Your task to perform on an android device: Open display settings Image 0: 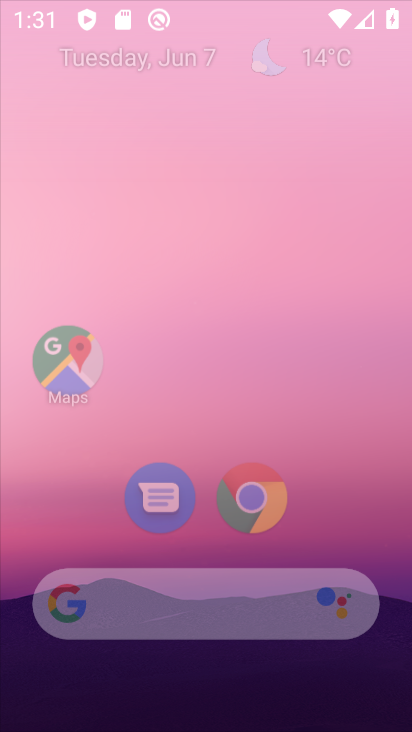
Step 0: click (281, 49)
Your task to perform on an android device: Open display settings Image 1: 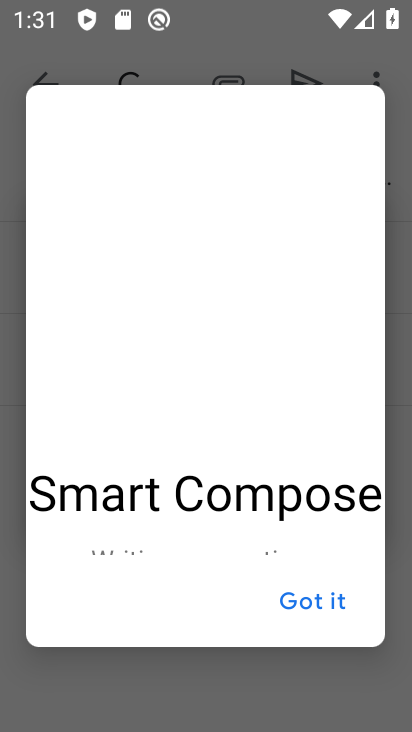
Step 1: press home button
Your task to perform on an android device: Open display settings Image 2: 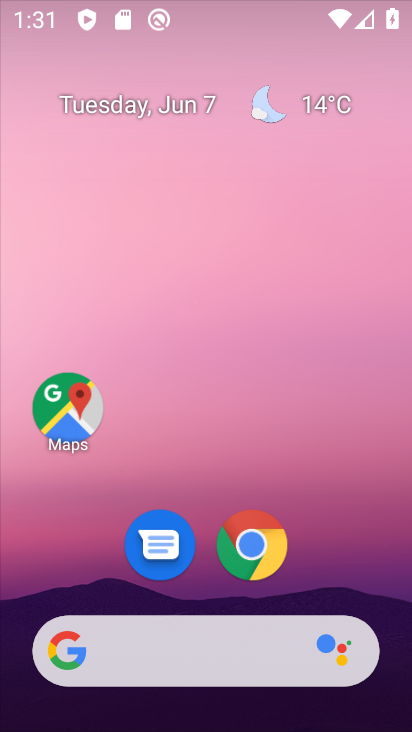
Step 2: drag from (318, 581) to (197, 4)
Your task to perform on an android device: Open display settings Image 3: 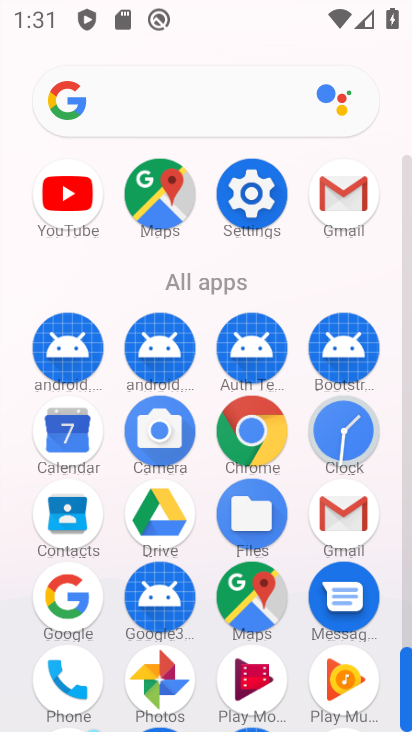
Step 3: click (253, 190)
Your task to perform on an android device: Open display settings Image 4: 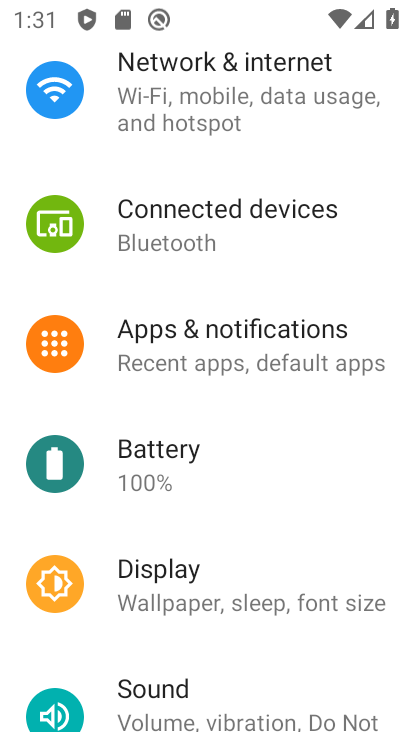
Step 4: click (231, 591)
Your task to perform on an android device: Open display settings Image 5: 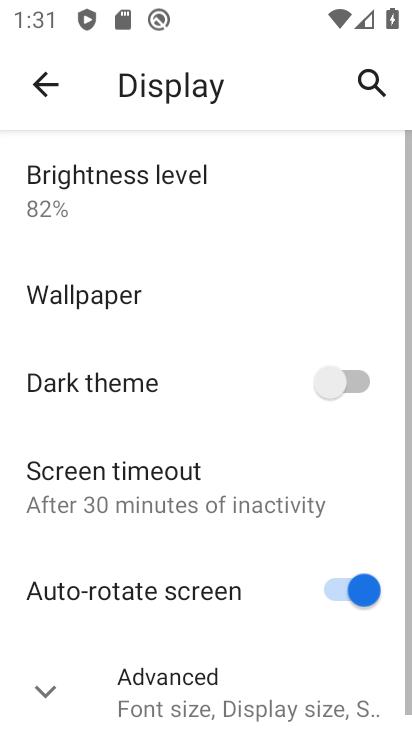
Step 5: task complete